Your task to perform on an android device: Go to Android settings Image 0: 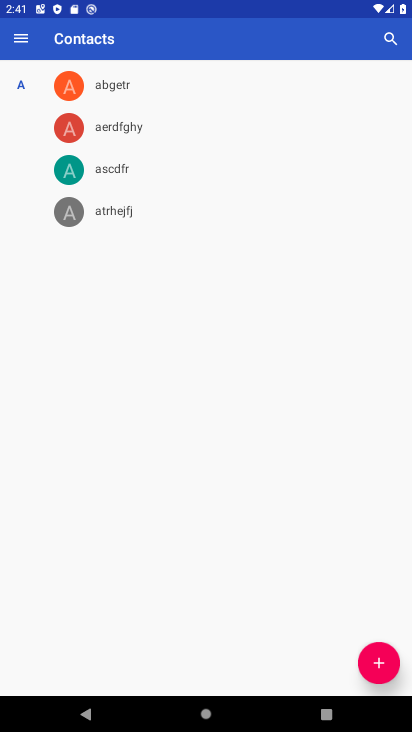
Step 0: press home button
Your task to perform on an android device: Go to Android settings Image 1: 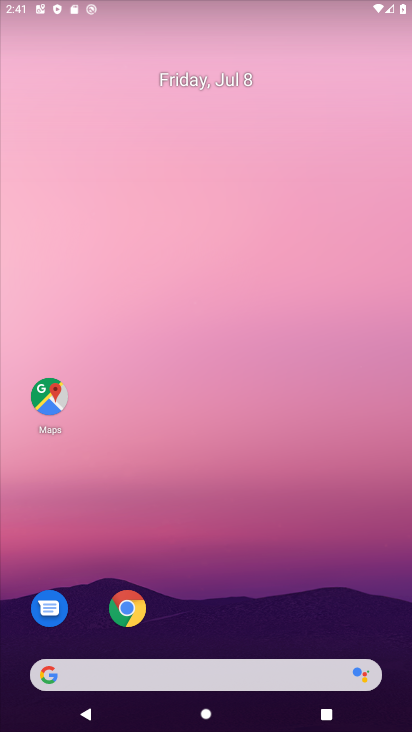
Step 1: drag from (249, 642) to (305, 0)
Your task to perform on an android device: Go to Android settings Image 2: 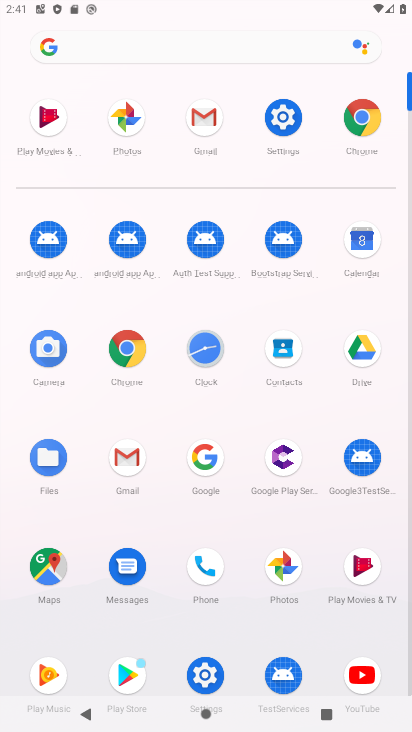
Step 2: click (280, 124)
Your task to perform on an android device: Go to Android settings Image 3: 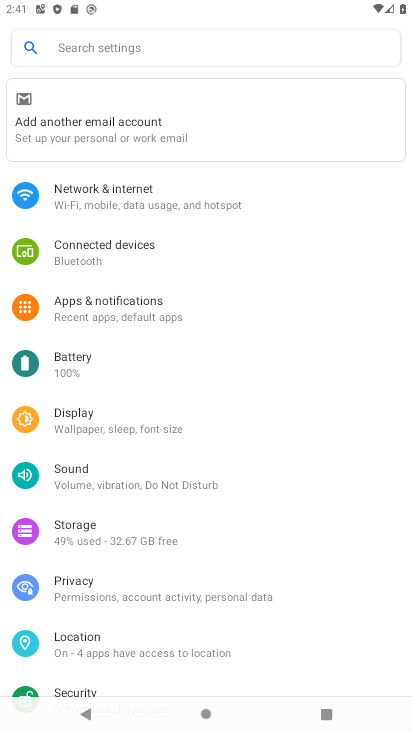
Step 3: drag from (171, 644) to (173, 122)
Your task to perform on an android device: Go to Android settings Image 4: 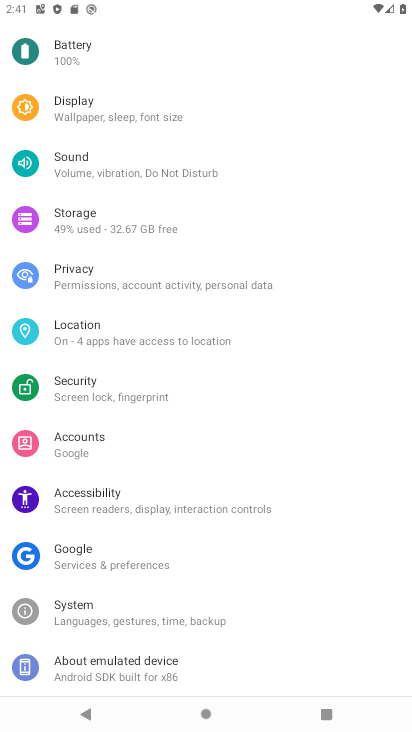
Step 4: click (150, 673)
Your task to perform on an android device: Go to Android settings Image 5: 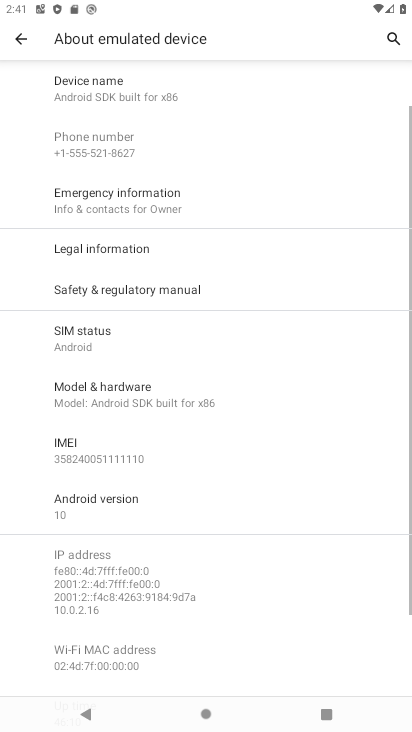
Step 5: click (110, 491)
Your task to perform on an android device: Go to Android settings Image 6: 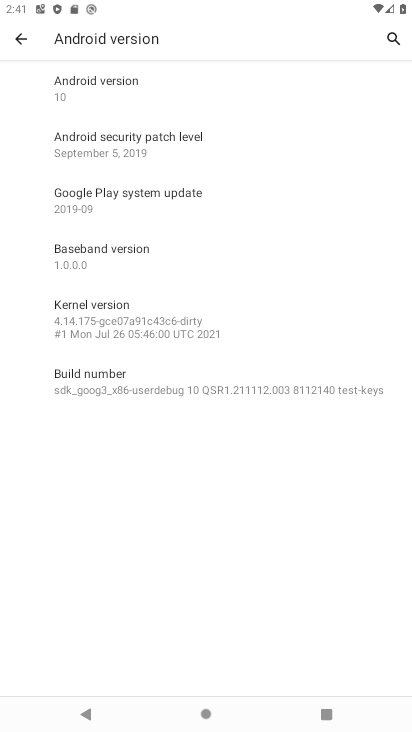
Step 6: task complete